Your task to perform on an android device: Open Yahoo.com Image 0: 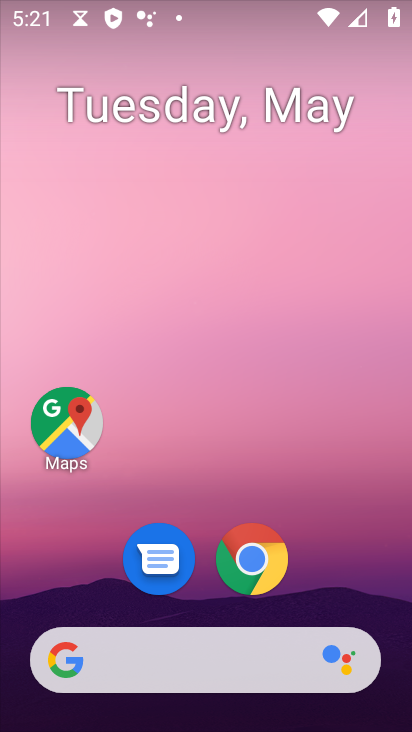
Step 0: drag from (360, 598) to (273, 36)
Your task to perform on an android device: Open Yahoo.com Image 1: 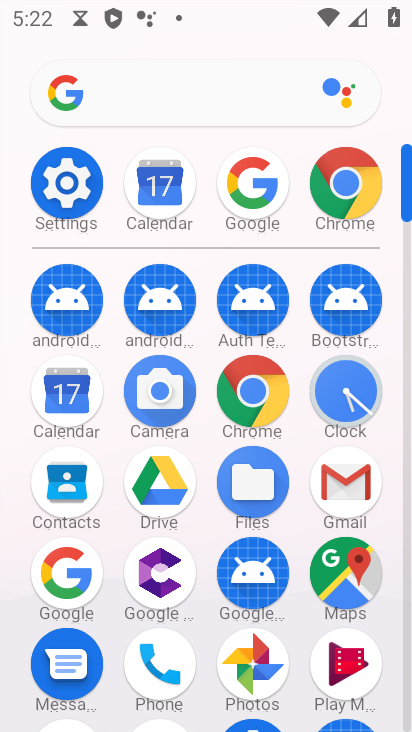
Step 1: click (350, 188)
Your task to perform on an android device: Open Yahoo.com Image 2: 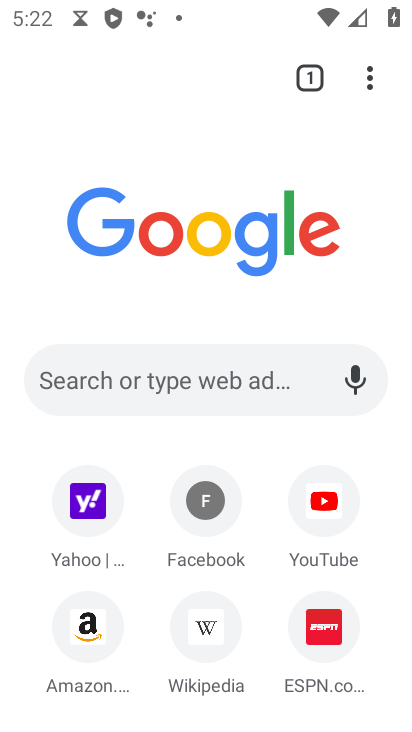
Step 2: click (73, 505)
Your task to perform on an android device: Open Yahoo.com Image 3: 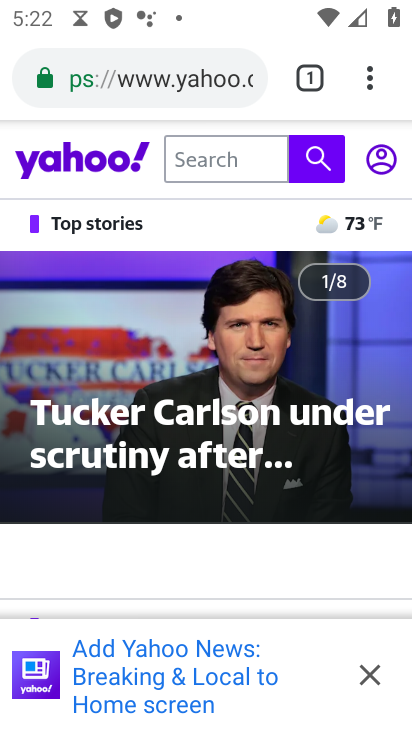
Step 3: task complete